Your task to perform on an android device: Go to internet settings Image 0: 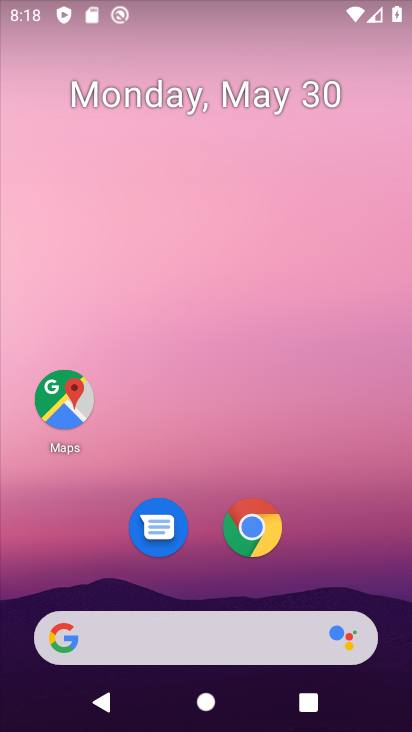
Step 0: drag from (195, 590) to (256, 2)
Your task to perform on an android device: Go to internet settings Image 1: 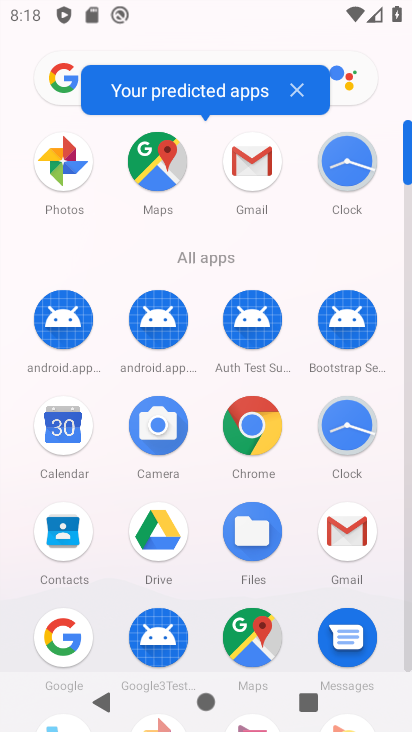
Step 1: drag from (198, 608) to (266, 205)
Your task to perform on an android device: Go to internet settings Image 2: 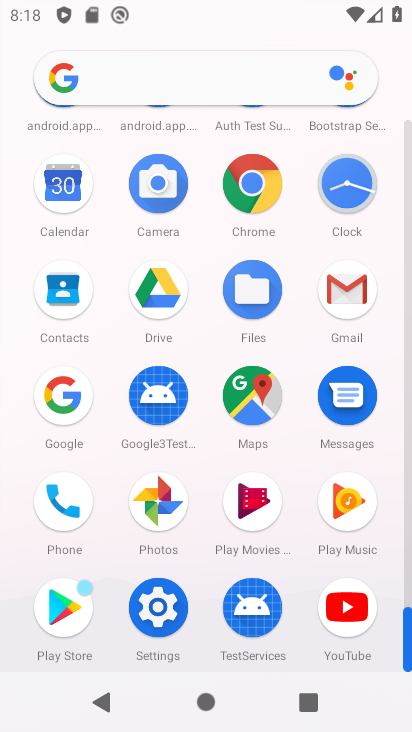
Step 2: click (159, 615)
Your task to perform on an android device: Go to internet settings Image 3: 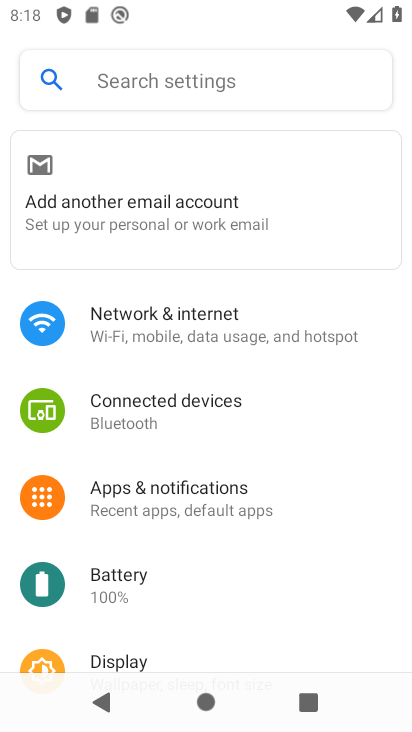
Step 3: click (242, 324)
Your task to perform on an android device: Go to internet settings Image 4: 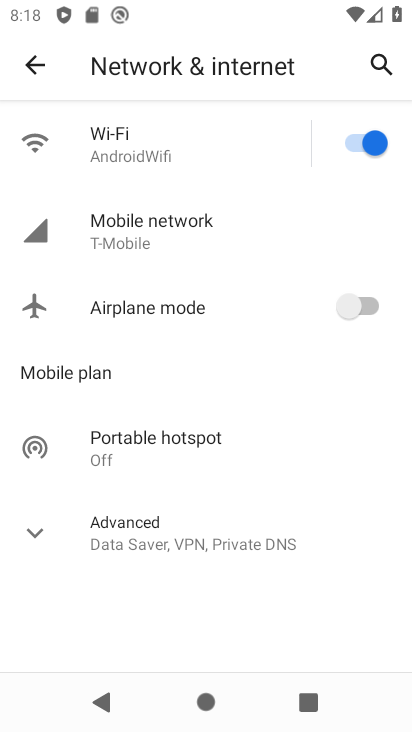
Step 4: task complete